Your task to perform on an android device: Search for pizza restaurants on Maps Image 0: 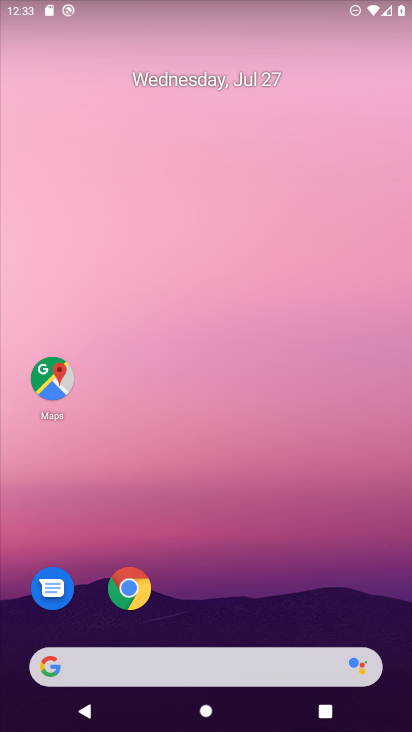
Step 0: drag from (47, 701) to (245, 217)
Your task to perform on an android device: Search for pizza restaurants on Maps Image 1: 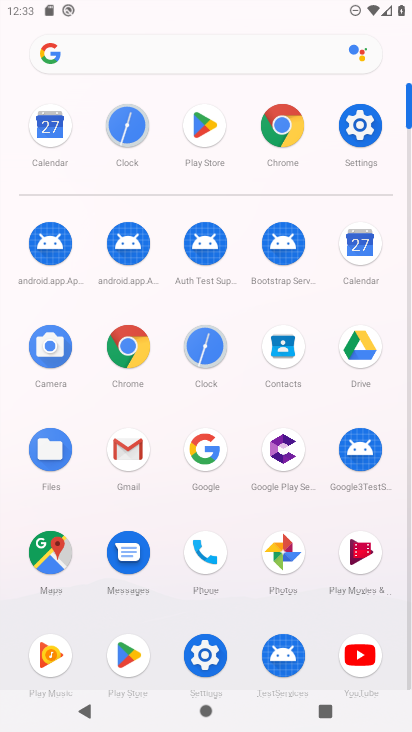
Step 1: click (47, 548)
Your task to perform on an android device: Search for pizza restaurants on Maps Image 2: 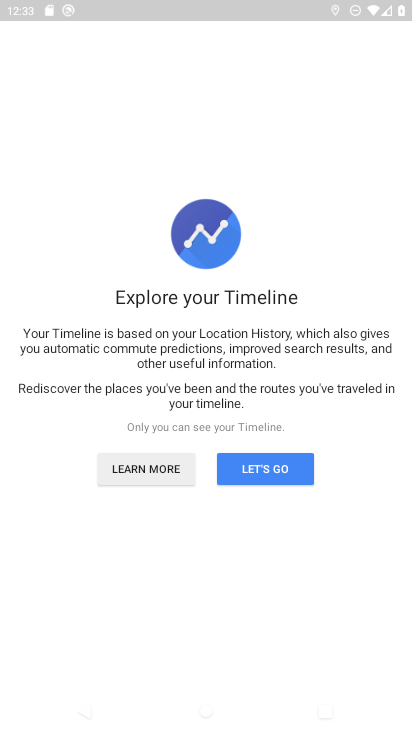
Step 2: click (255, 464)
Your task to perform on an android device: Search for pizza restaurants on Maps Image 3: 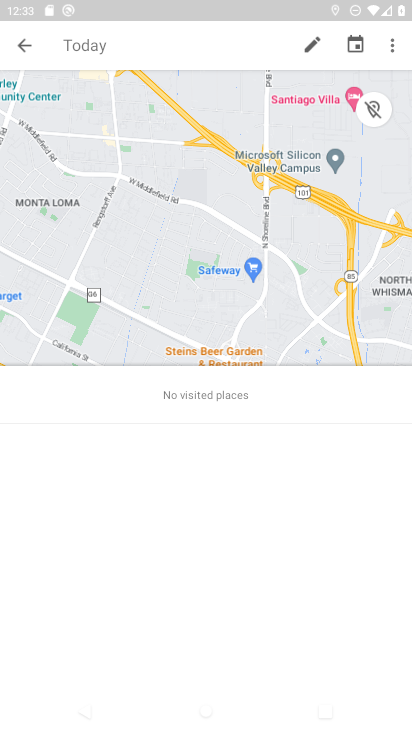
Step 3: click (111, 31)
Your task to perform on an android device: Search for pizza restaurants on Maps Image 4: 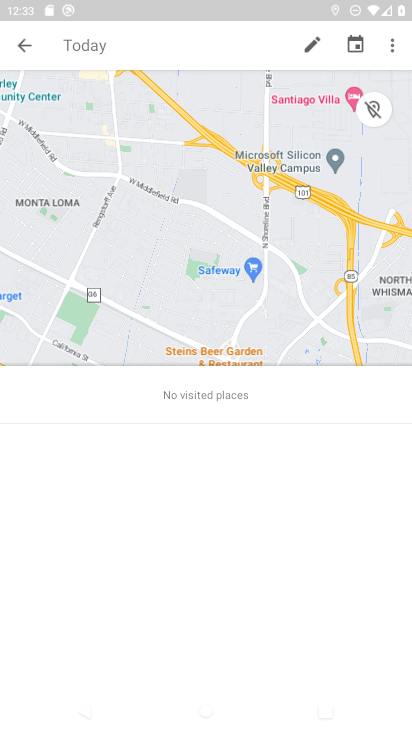
Step 4: click (83, 49)
Your task to perform on an android device: Search for pizza restaurants on Maps Image 5: 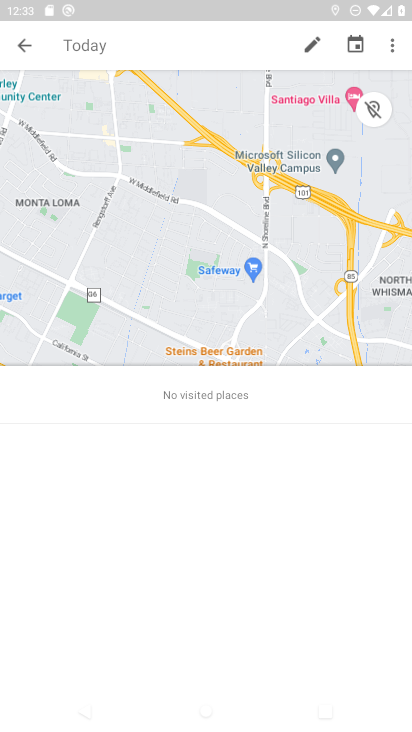
Step 5: click (24, 39)
Your task to perform on an android device: Search for pizza restaurants on Maps Image 6: 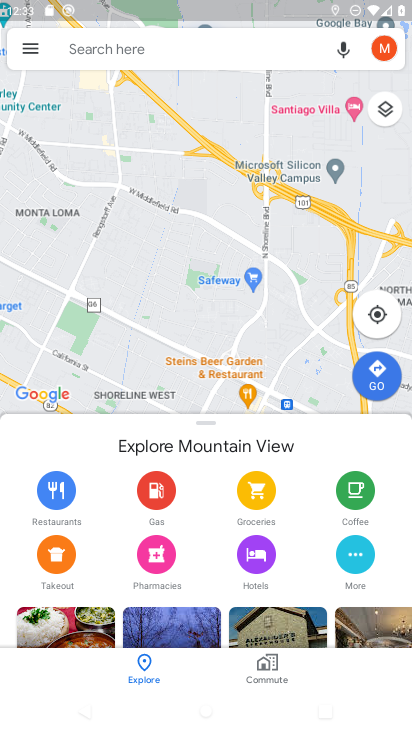
Step 6: click (88, 51)
Your task to perform on an android device: Search for pizza restaurants on Maps Image 7: 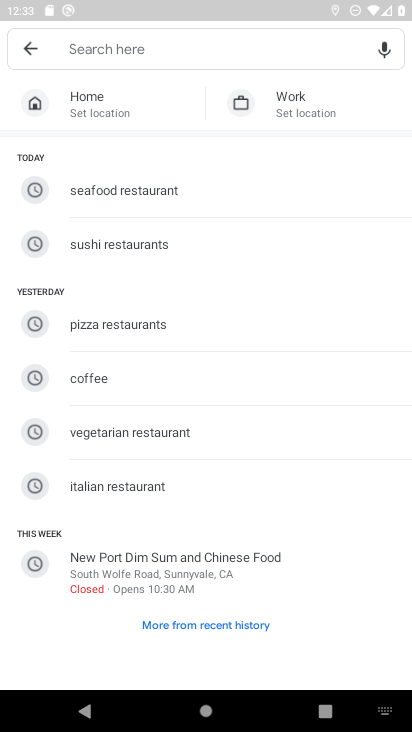
Step 7: click (119, 330)
Your task to perform on an android device: Search for pizza restaurants on Maps Image 8: 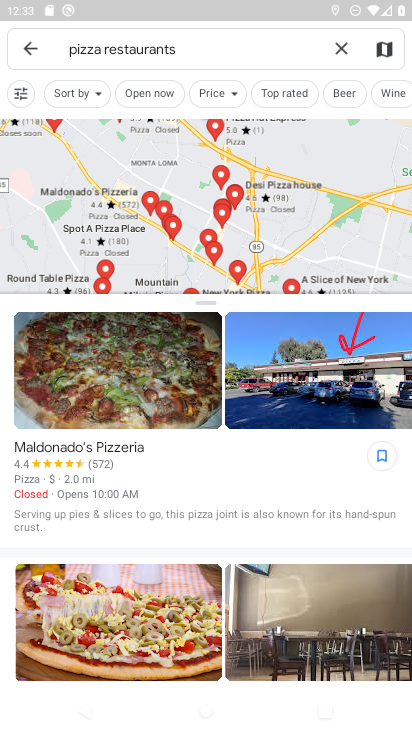
Step 8: task complete